Your task to perform on an android device: toggle data saver in the chrome app Image 0: 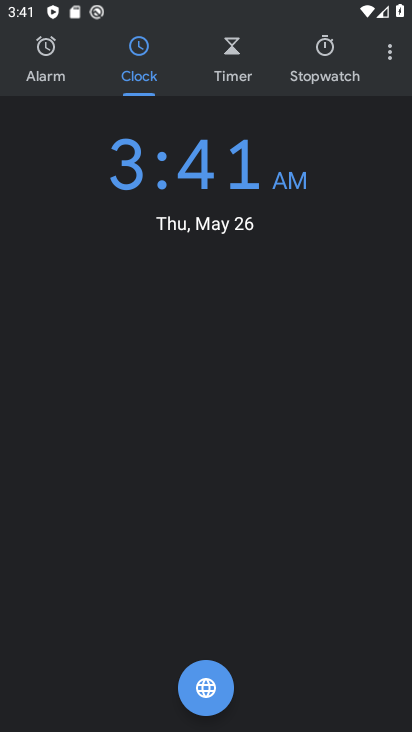
Step 0: press home button
Your task to perform on an android device: toggle data saver in the chrome app Image 1: 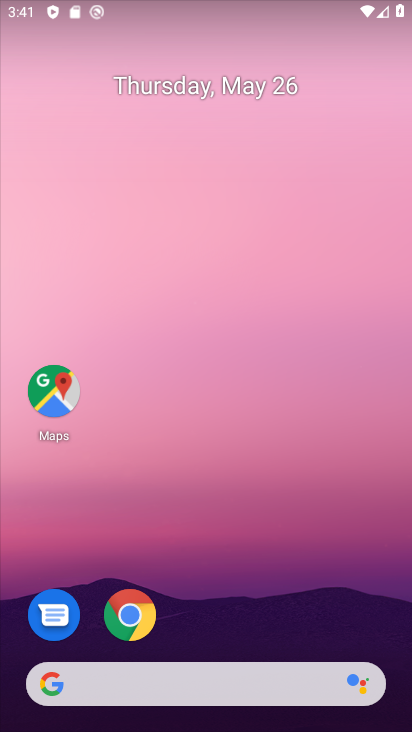
Step 1: click (128, 628)
Your task to perform on an android device: toggle data saver in the chrome app Image 2: 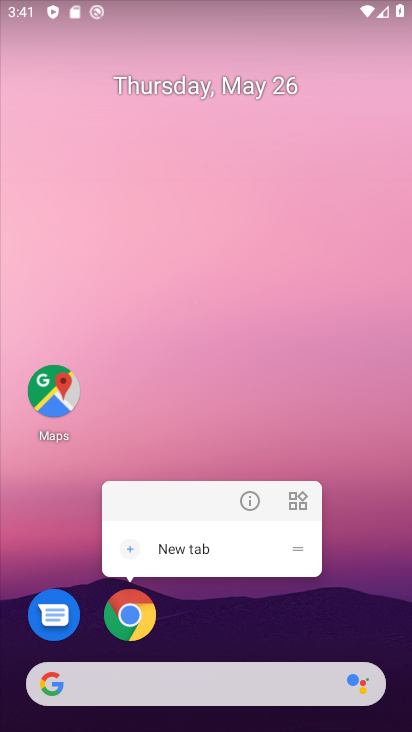
Step 2: click (141, 625)
Your task to perform on an android device: toggle data saver in the chrome app Image 3: 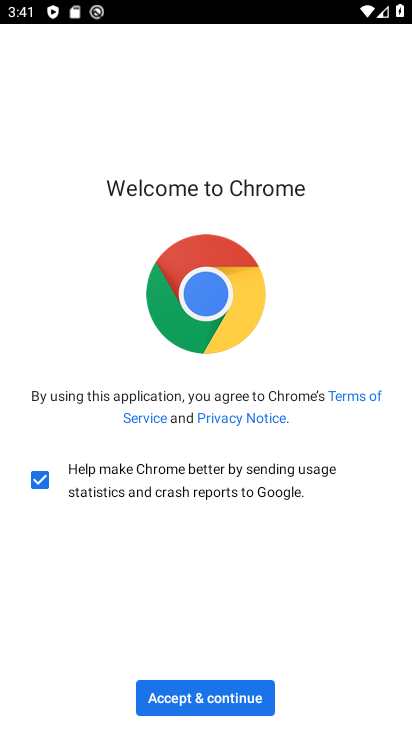
Step 3: click (241, 688)
Your task to perform on an android device: toggle data saver in the chrome app Image 4: 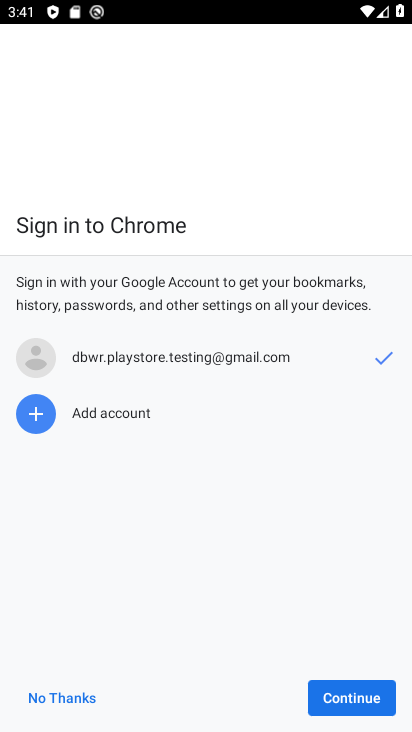
Step 4: click (344, 702)
Your task to perform on an android device: toggle data saver in the chrome app Image 5: 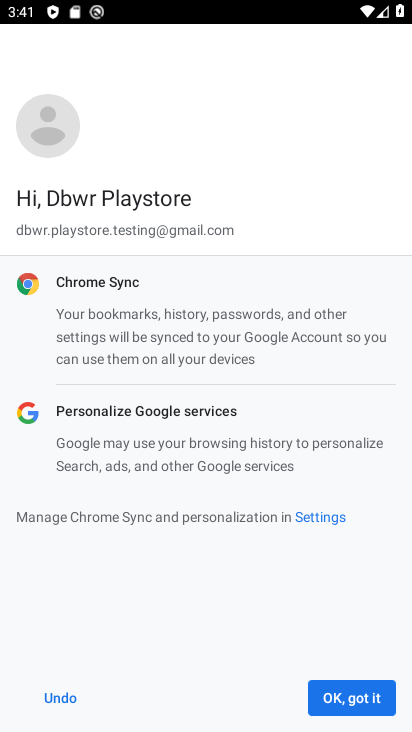
Step 5: click (344, 702)
Your task to perform on an android device: toggle data saver in the chrome app Image 6: 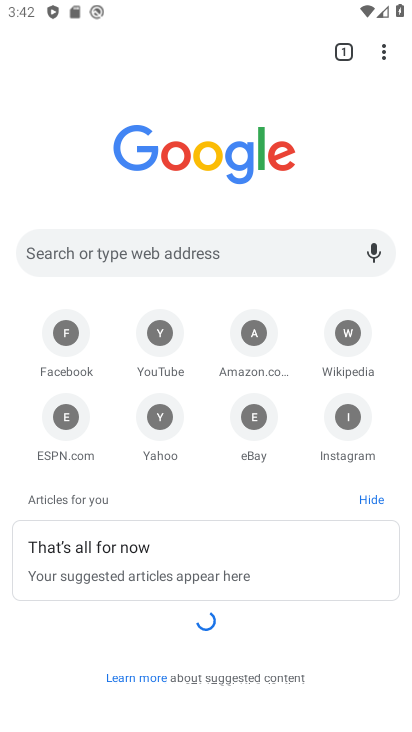
Step 6: drag from (393, 57) to (284, 432)
Your task to perform on an android device: toggle data saver in the chrome app Image 7: 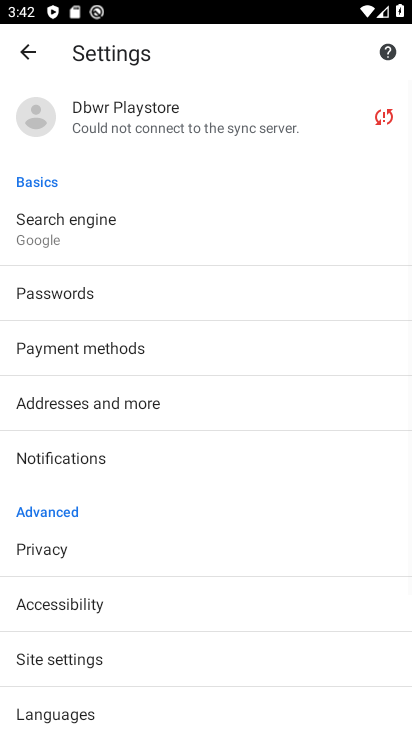
Step 7: drag from (194, 673) to (331, 329)
Your task to perform on an android device: toggle data saver in the chrome app Image 8: 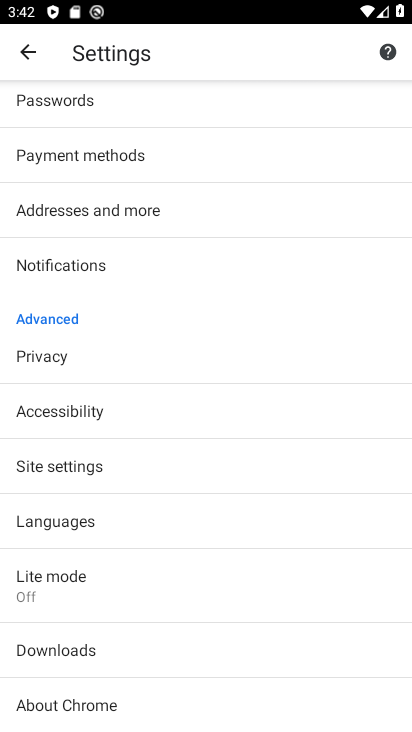
Step 8: click (117, 580)
Your task to perform on an android device: toggle data saver in the chrome app Image 9: 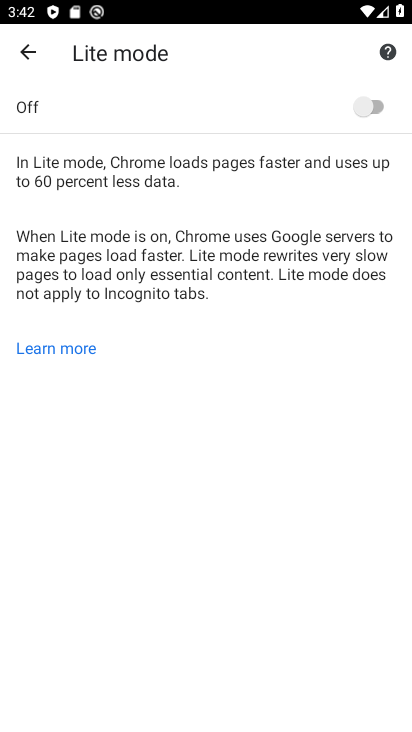
Step 9: click (400, 103)
Your task to perform on an android device: toggle data saver in the chrome app Image 10: 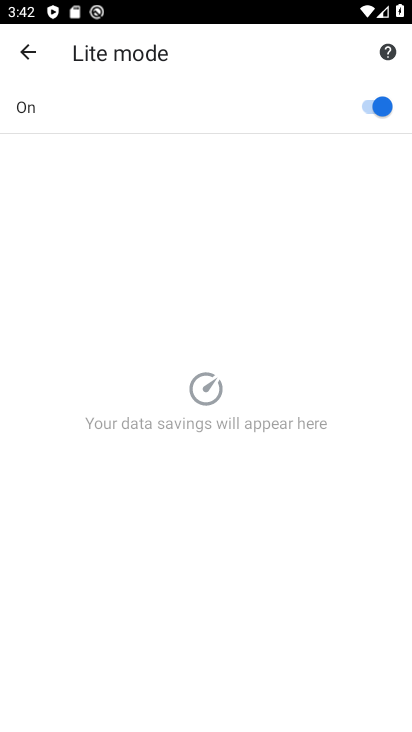
Step 10: task complete